Your task to perform on an android device: Search for rayovac triple a on walmart, select the first entry, and add it to the cart. Image 0: 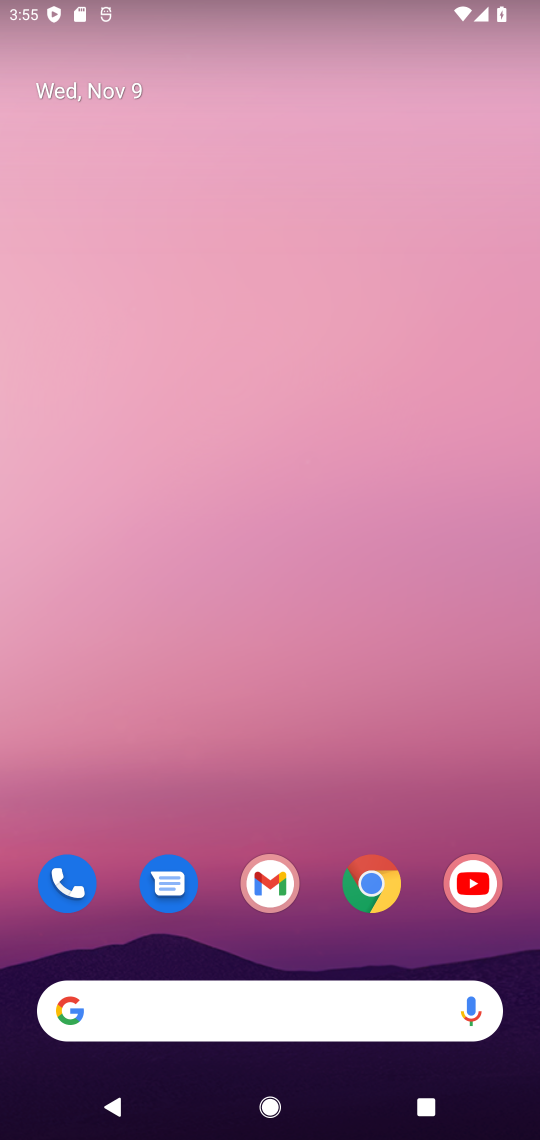
Step 0: click (368, 881)
Your task to perform on an android device: Search for rayovac triple a on walmart, select the first entry, and add it to the cart. Image 1: 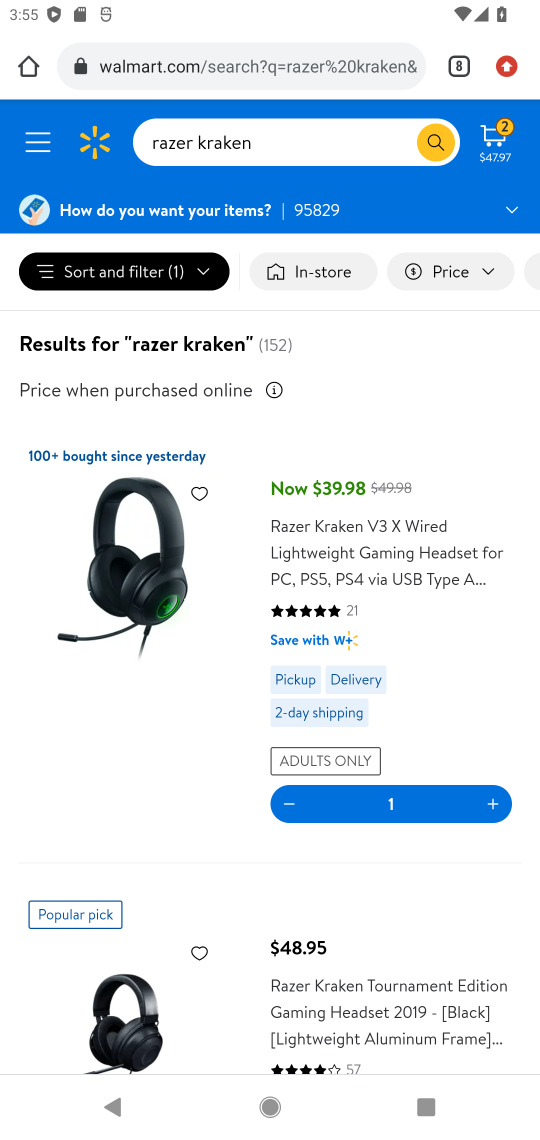
Step 1: click (257, 137)
Your task to perform on an android device: Search for rayovac triple a on walmart, select the first entry, and add it to the cart. Image 2: 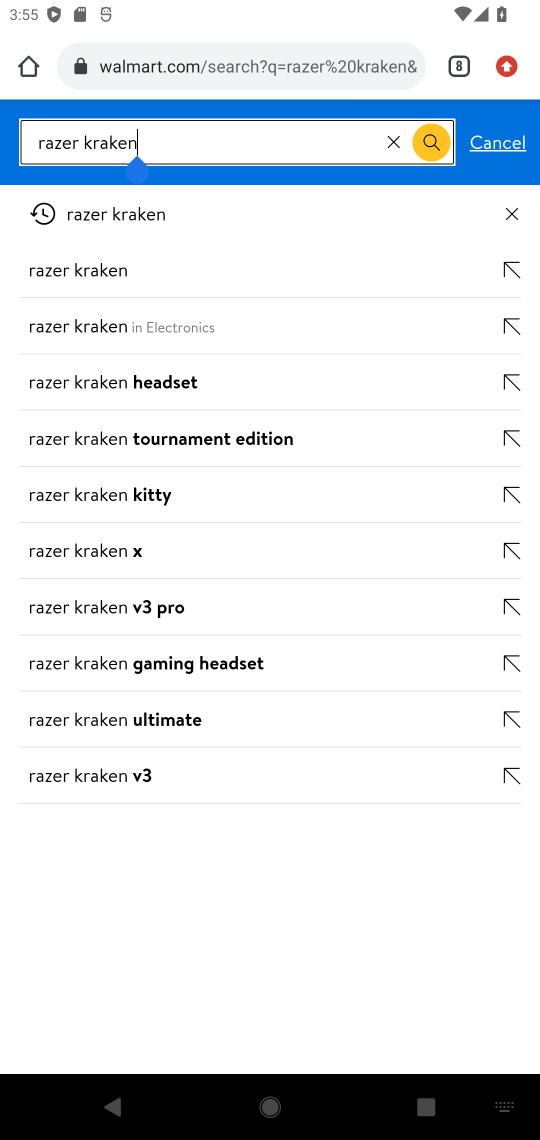
Step 2: click (390, 139)
Your task to perform on an android device: Search for rayovac triple a on walmart, select the first entry, and add it to the cart. Image 3: 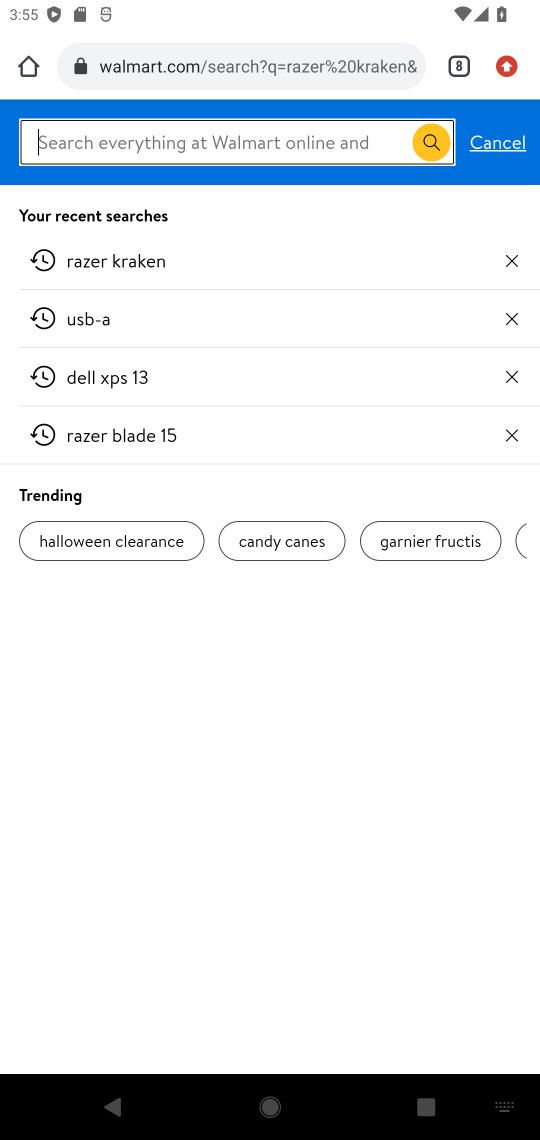
Step 3: type "rayovac triple a battery"
Your task to perform on an android device: Search for rayovac triple a on walmart, select the first entry, and add it to the cart. Image 4: 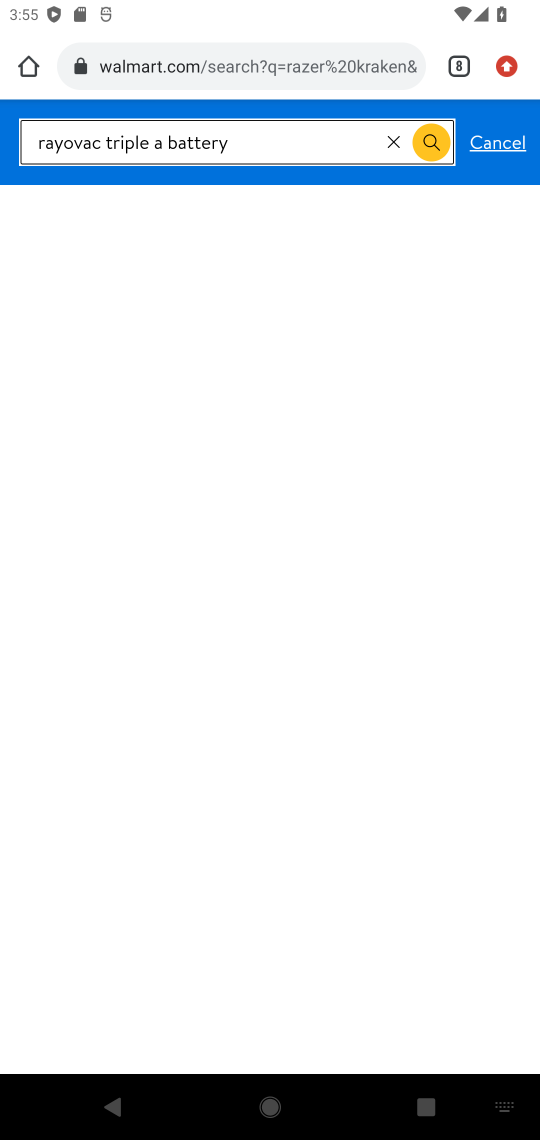
Step 4: click (431, 145)
Your task to perform on an android device: Search for rayovac triple a on walmart, select the first entry, and add it to the cart. Image 5: 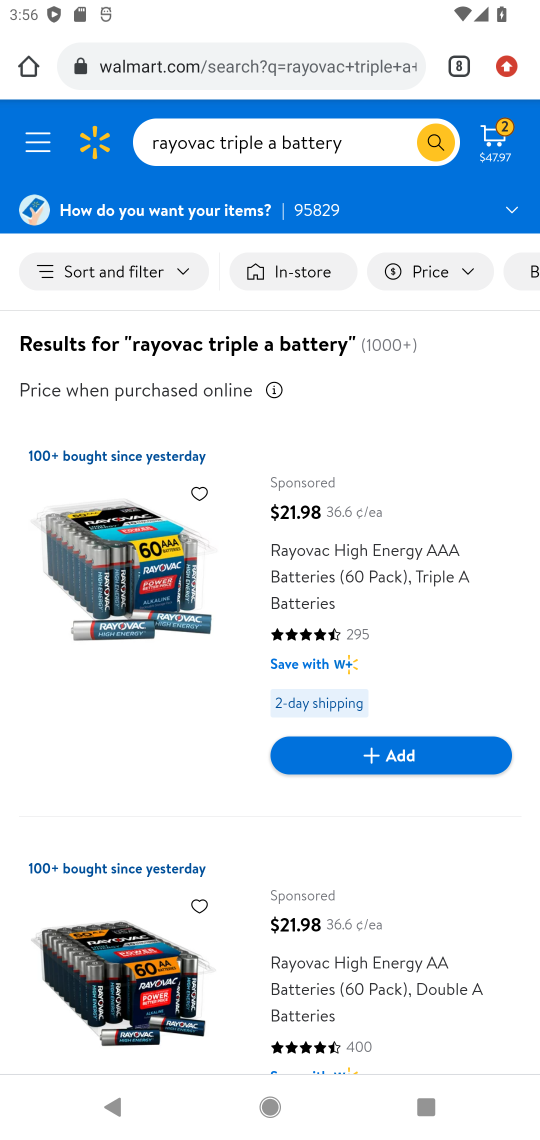
Step 5: click (368, 760)
Your task to perform on an android device: Search for rayovac triple a on walmart, select the first entry, and add it to the cart. Image 6: 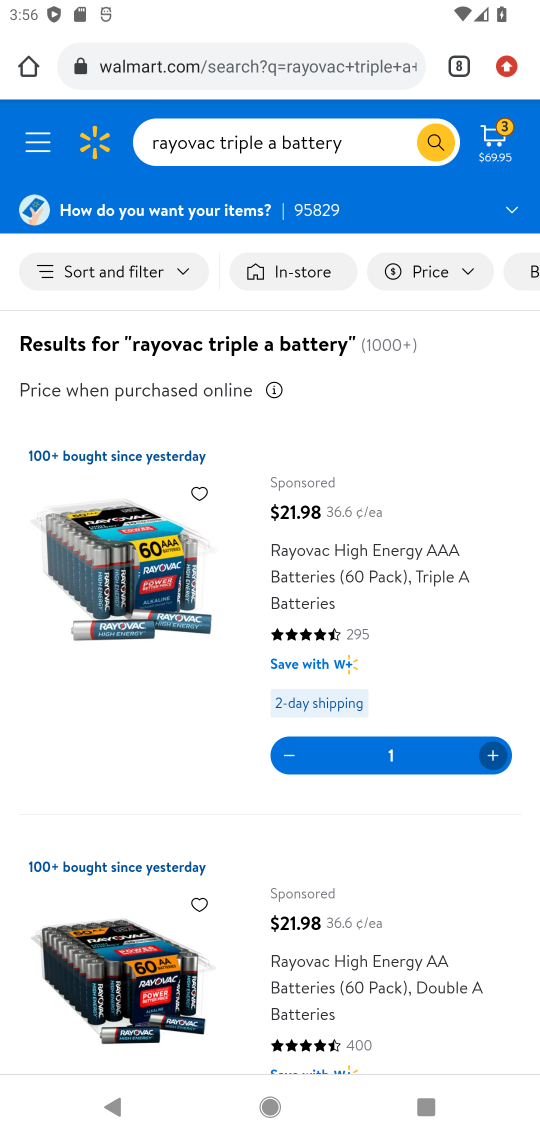
Step 6: task complete